Your task to perform on an android device: change keyboard looks Image 0: 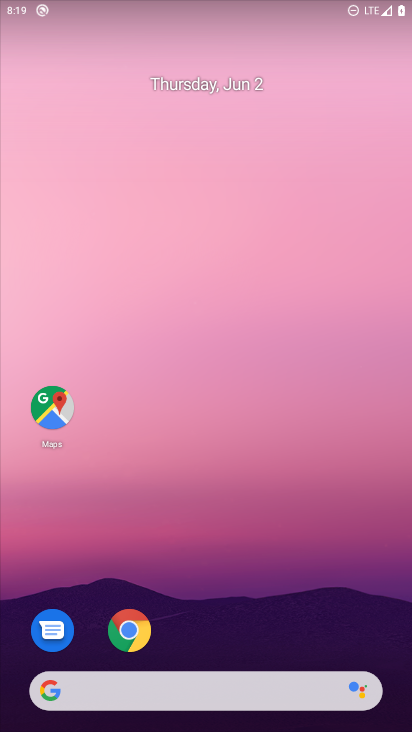
Step 0: drag from (144, 731) to (145, 44)
Your task to perform on an android device: change keyboard looks Image 1: 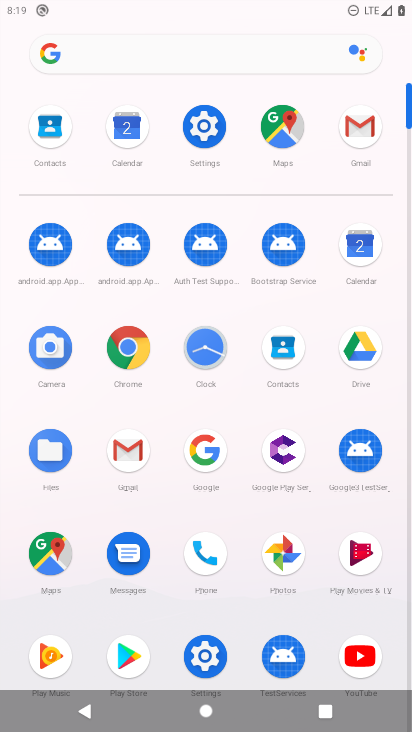
Step 1: click (209, 128)
Your task to perform on an android device: change keyboard looks Image 2: 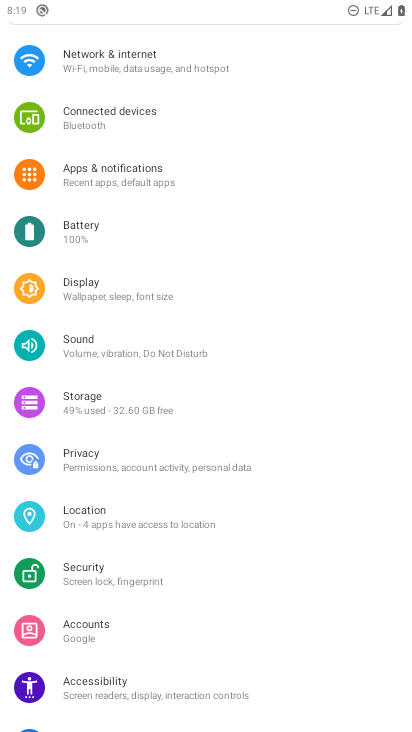
Step 2: drag from (244, 625) to (262, 261)
Your task to perform on an android device: change keyboard looks Image 3: 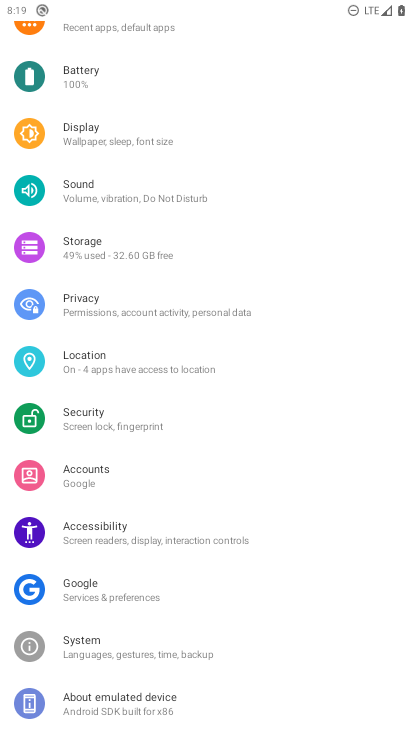
Step 3: click (88, 630)
Your task to perform on an android device: change keyboard looks Image 4: 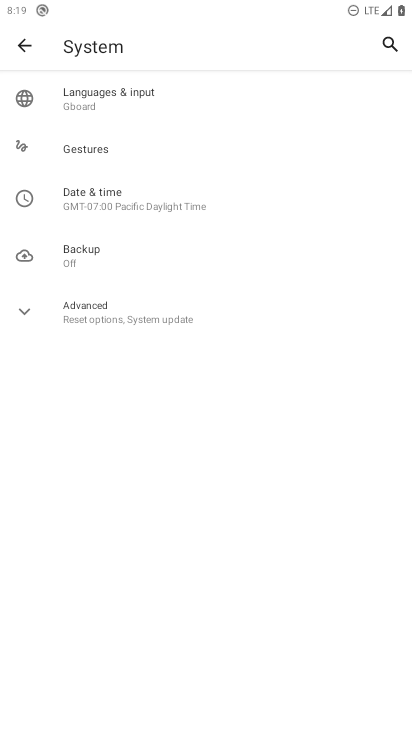
Step 4: click (135, 99)
Your task to perform on an android device: change keyboard looks Image 5: 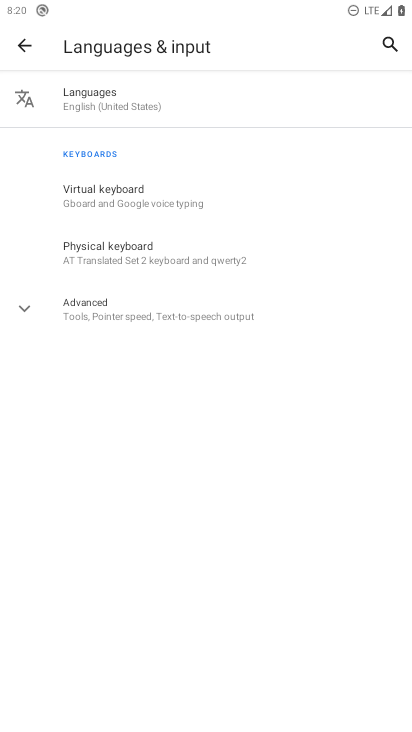
Step 5: click (155, 199)
Your task to perform on an android device: change keyboard looks Image 6: 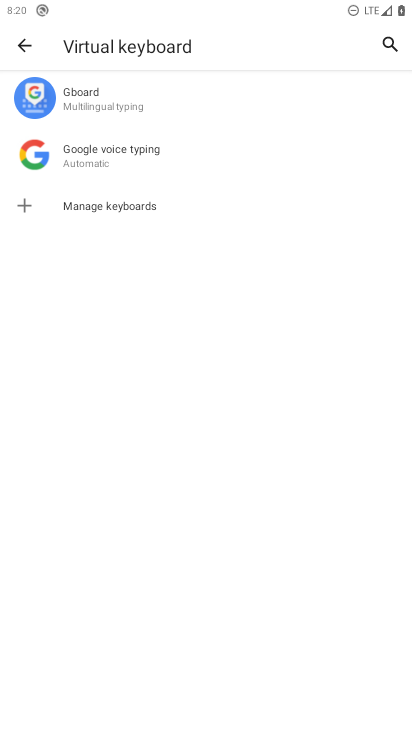
Step 6: click (149, 112)
Your task to perform on an android device: change keyboard looks Image 7: 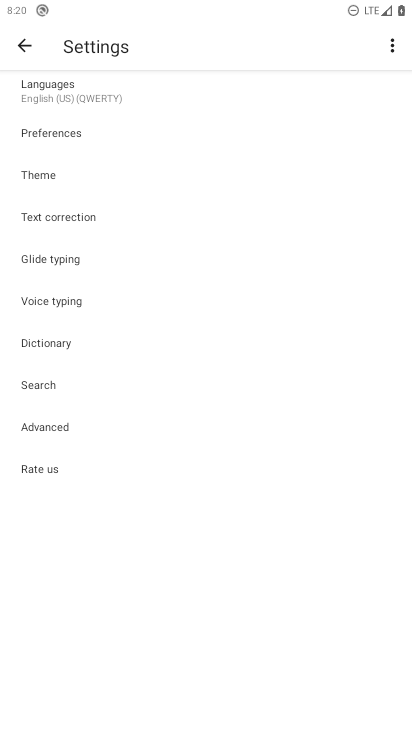
Step 7: click (64, 183)
Your task to perform on an android device: change keyboard looks Image 8: 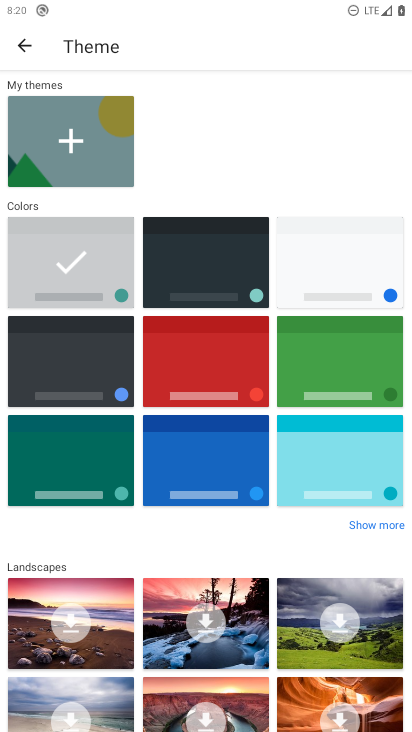
Step 8: click (229, 279)
Your task to perform on an android device: change keyboard looks Image 9: 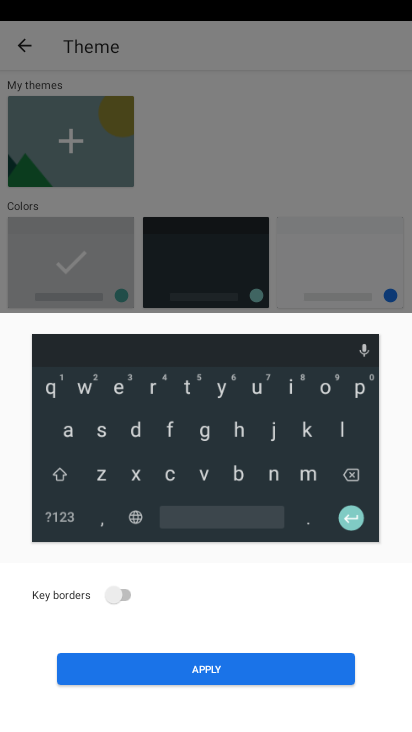
Step 9: click (196, 678)
Your task to perform on an android device: change keyboard looks Image 10: 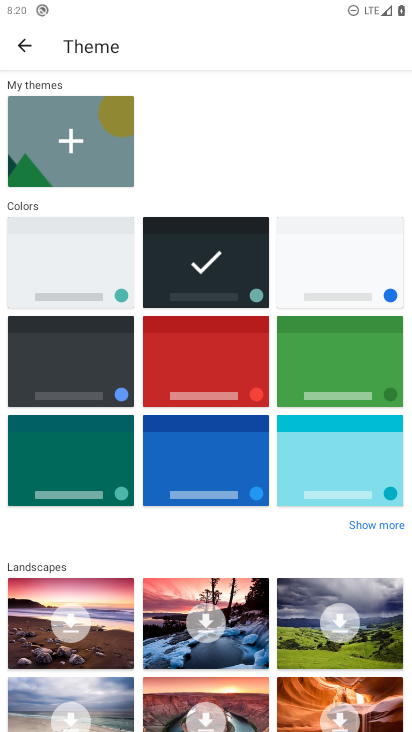
Step 10: task complete